Your task to perform on an android device: Search for seafood restaurants on Google Maps Image 0: 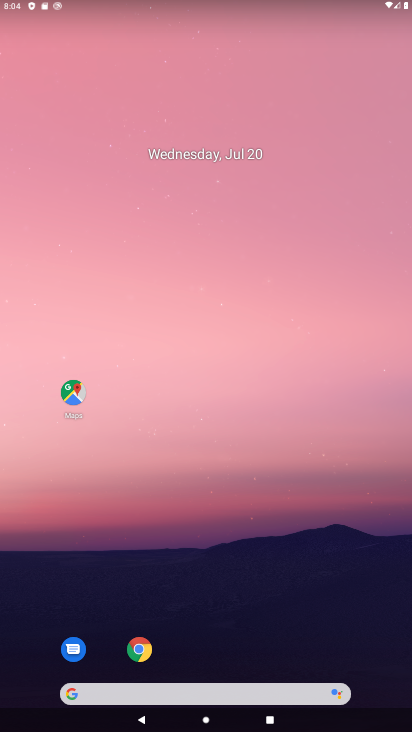
Step 0: drag from (211, 663) to (45, 59)
Your task to perform on an android device: Search for seafood restaurants on Google Maps Image 1: 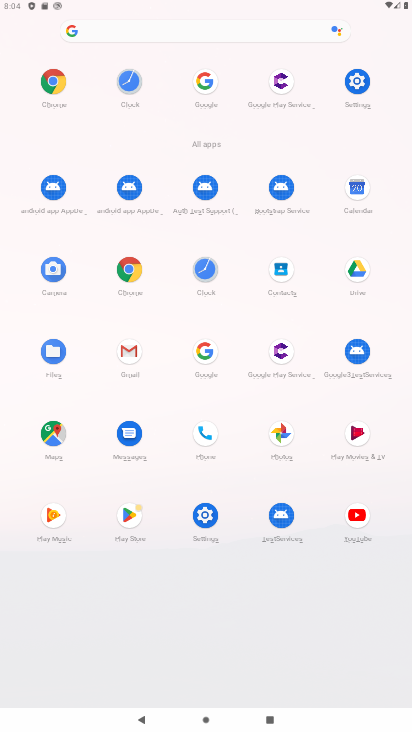
Step 1: click (50, 446)
Your task to perform on an android device: Search for seafood restaurants on Google Maps Image 2: 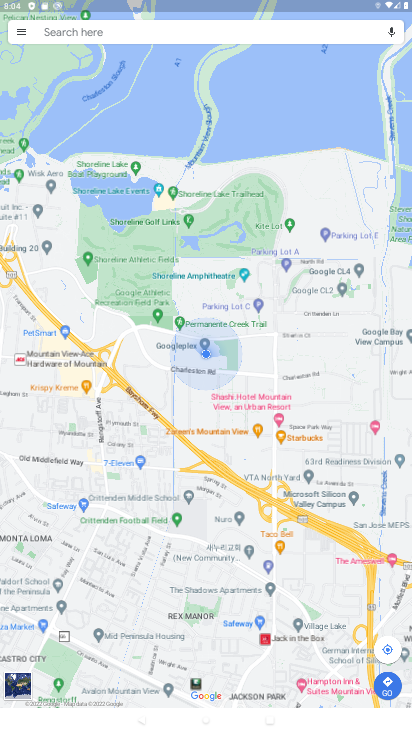
Step 2: click (135, 45)
Your task to perform on an android device: Search for seafood restaurants on Google Maps Image 3: 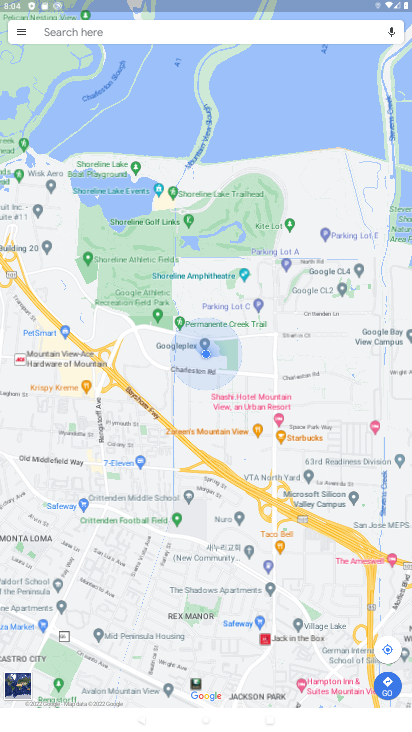
Step 3: click (132, 33)
Your task to perform on an android device: Search for seafood restaurants on Google Maps Image 4: 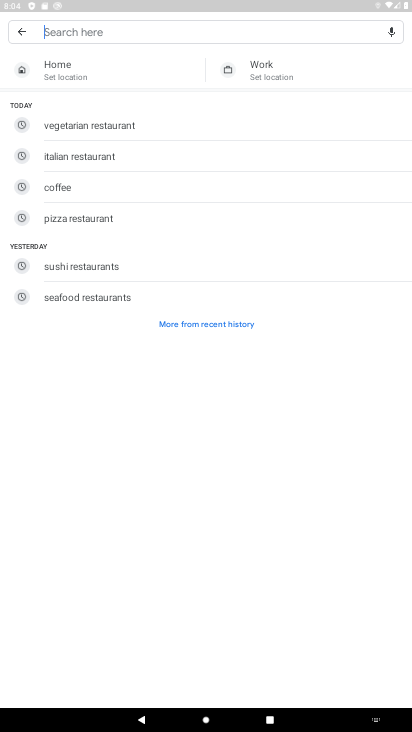
Step 4: click (59, 292)
Your task to perform on an android device: Search for seafood restaurants on Google Maps Image 5: 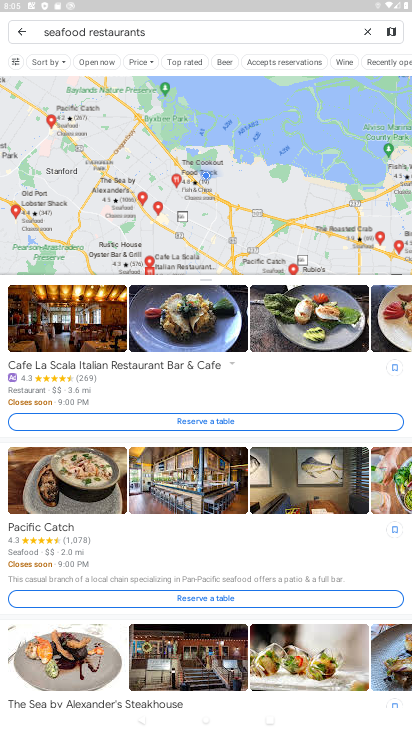
Step 5: task complete